Your task to perform on an android device: toggle notification dots Image 0: 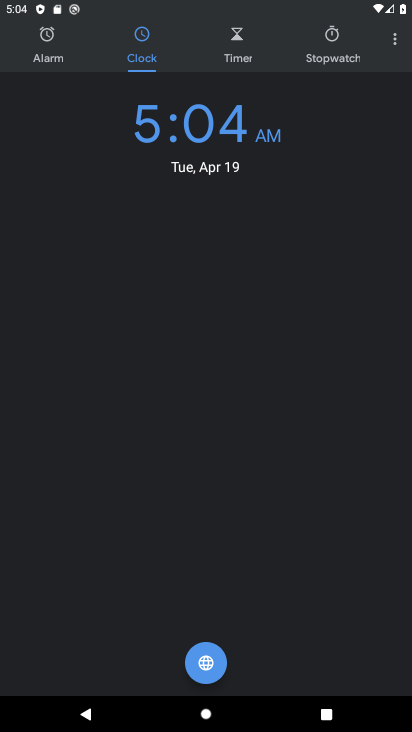
Step 0: press home button
Your task to perform on an android device: toggle notification dots Image 1: 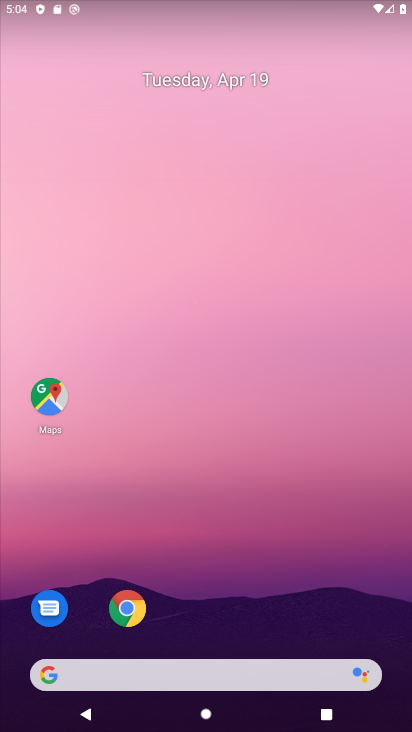
Step 1: drag from (326, 508) to (295, 22)
Your task to perform on an android device: toggle notification dots Image 2: 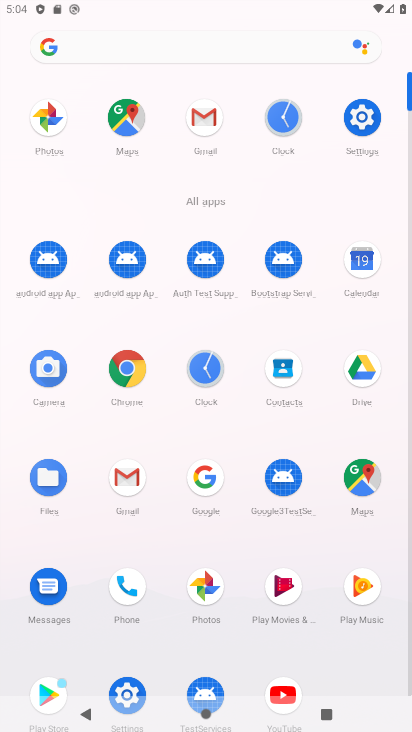
Step 2: click (361, 118)
Your task to perform on an android device: toggle notification dots Image 3: 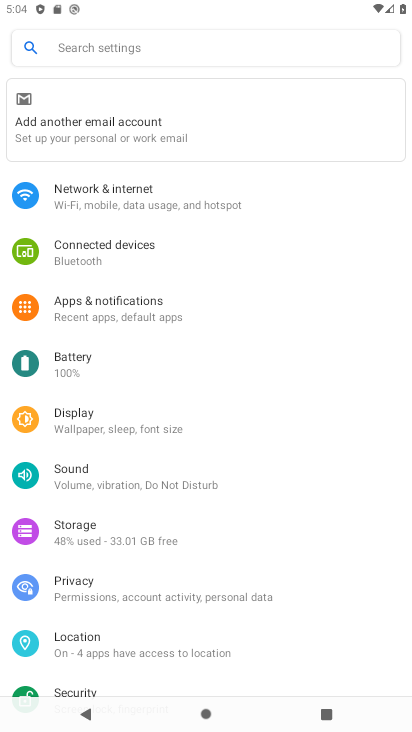
Step 3: click (131, 301)
Your task to perform on an android device: toggle notification dots Image 4: 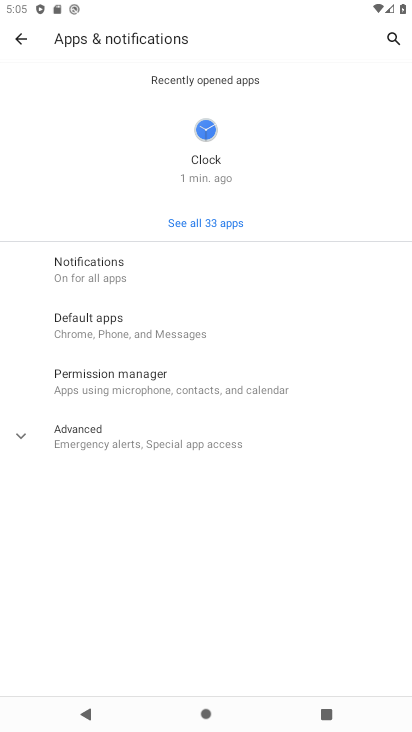
Step 4: click (100, 271)
Your task to perform on an android device: toggle notification dots Image 5: 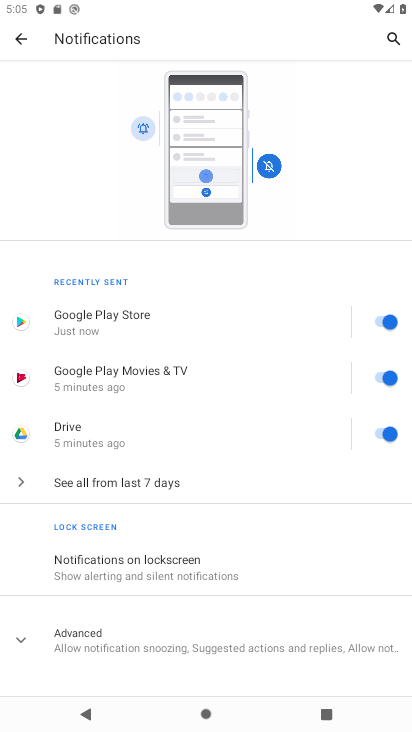
Step 5: drag from (184, 553) to (160, 219)
Your task to perform on an android device: toggle notification dots Image 6: 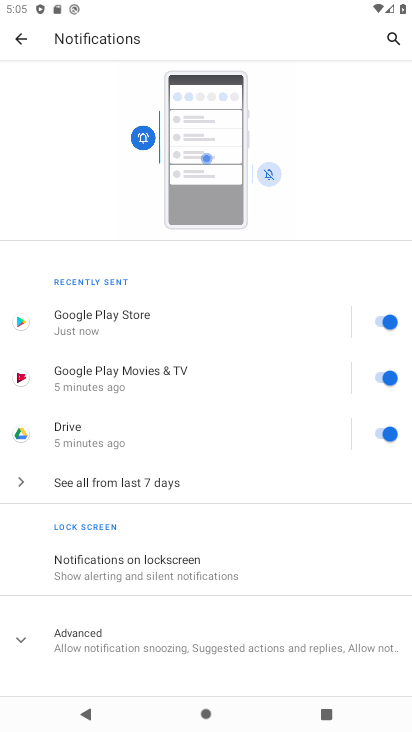
Step 6: click (19, 642)
Your task to perform on an android device: toggle notification dots Image 7: 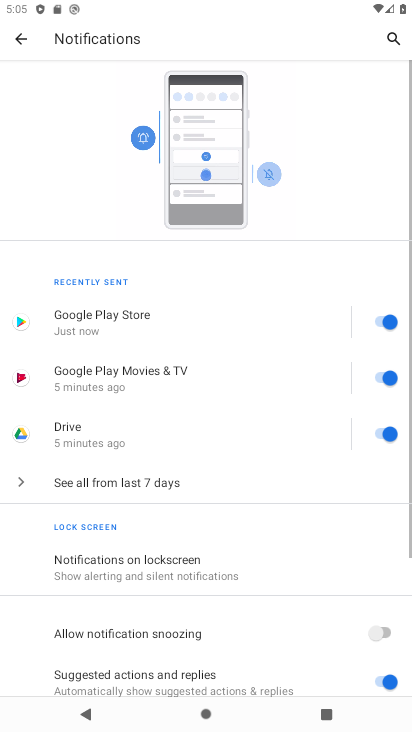
Step 7: drag from (151, 615) to (157, 219)
Your task to perform on an android device: toggle notification dots Image 8: 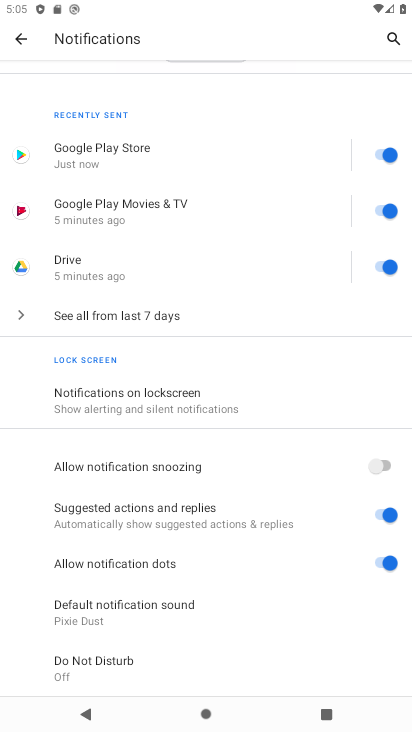
Step 8: click (384, 561)
Your task to perform on an android device: toggle notification dots Image 9: 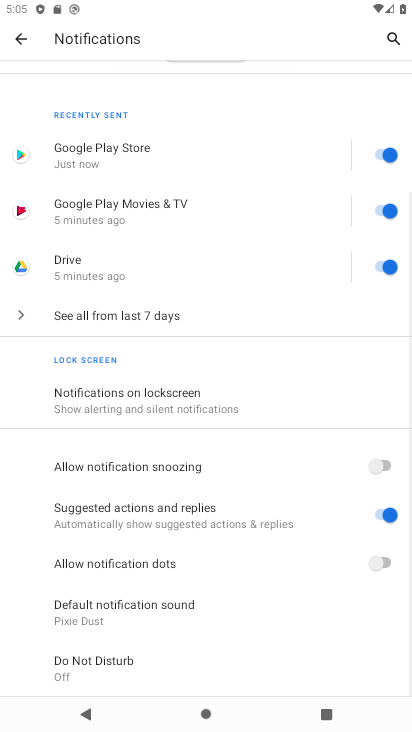
Step 9: task complete